Your task to perform on an android device: turn on data saver in the chrome app Image 0: 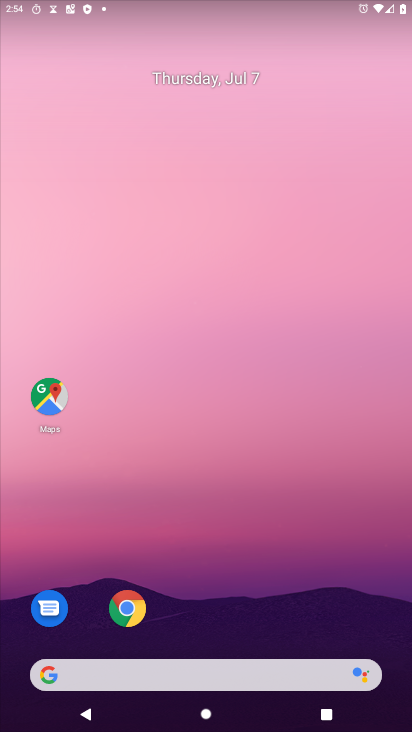
Step 0: click (128, 603)
Your task to perform on an android device: turn on data saver in the chrome app Image 1: 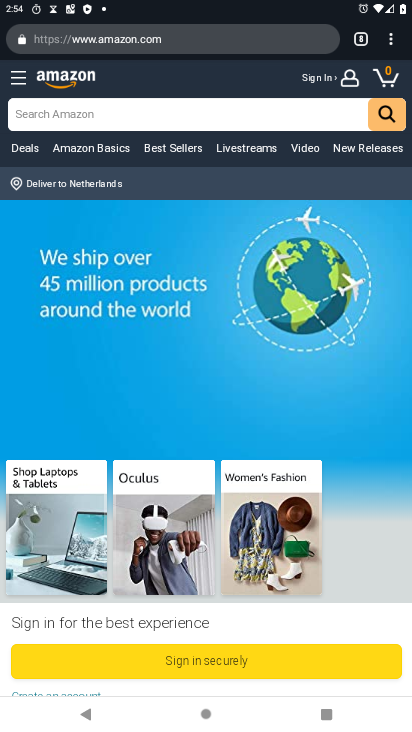
Step 1: click (390, 43)
Your task to perform on an android device: turn on data saver in the chrome app Image 2: 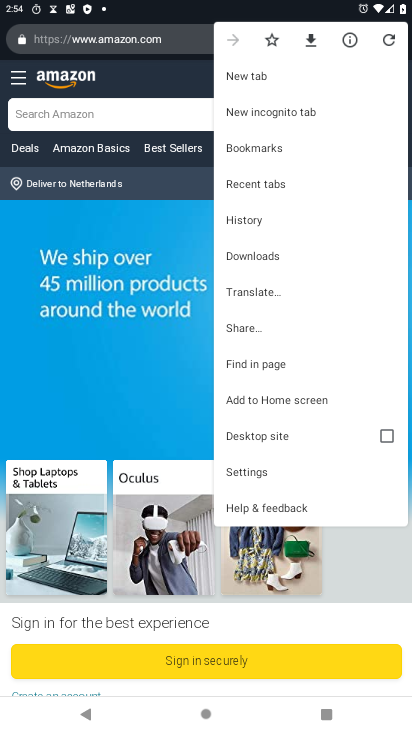
Step 2: click (246, 468)
Your task to perform on an android device: turn on data saver in the chrome app Image 3: 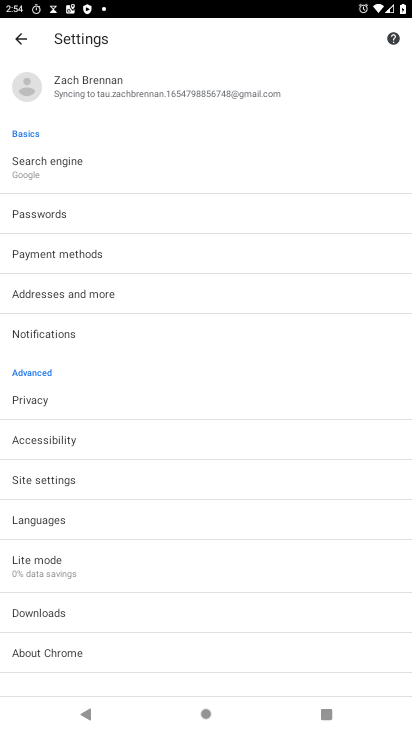
Step 3: click (52, 562)
Your task to perform on an android device: turn on data saver in the chrome app Image 4: 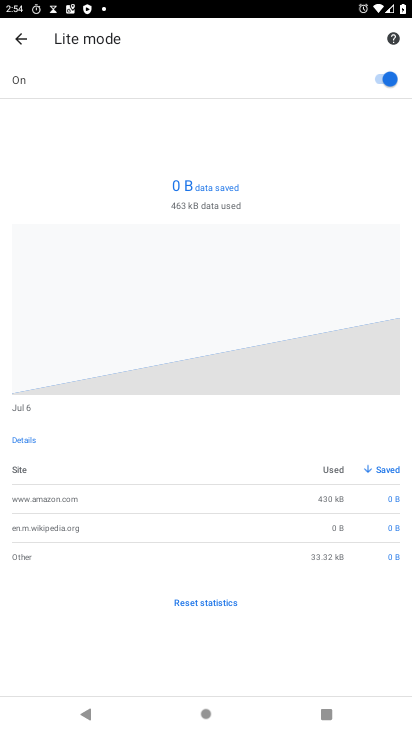
Step 4: task complete